Your task to perform on an android device: See recent photos Image 0: 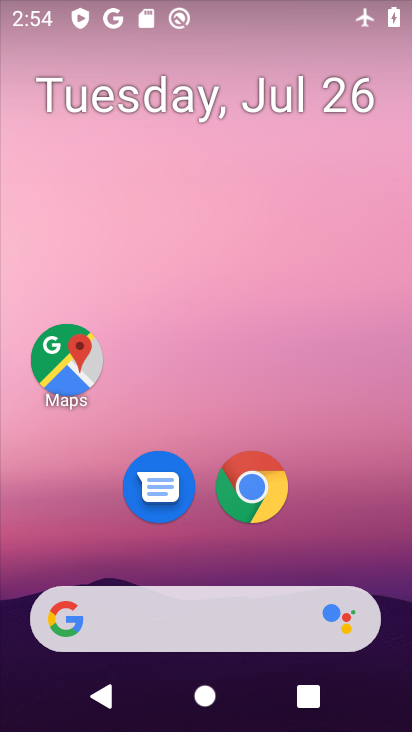
Step 0: drag from (134, 531) to (271, 0)
Your task to perform on an android device: See recent photos Image 1: 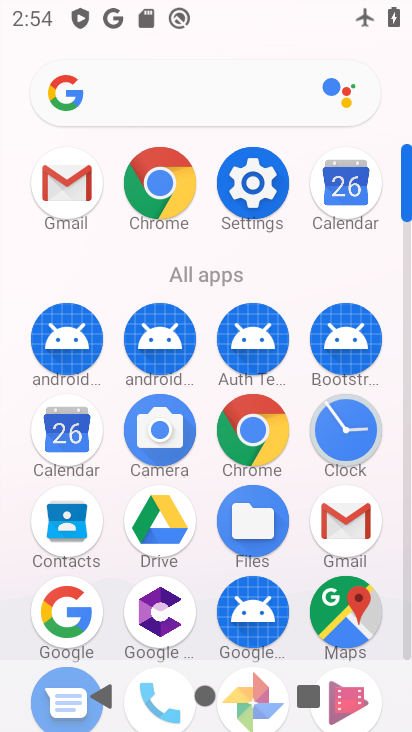
Step 1: drag from (194, 552) to (255, 183)
Your task to perform on an android device: See recent photos Image 2: 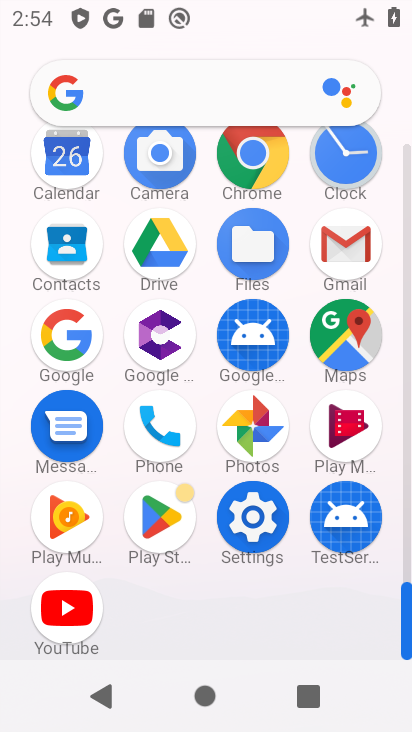
Step 2: click (241, 430)
Your task to perform on an android device: See recent photos Image 3: 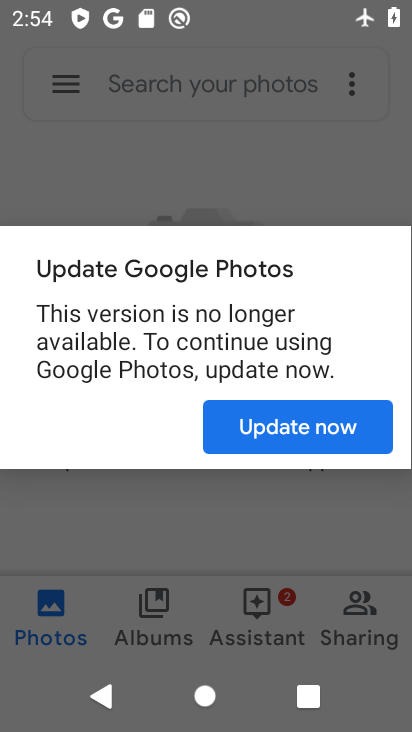
Step 3: click (304, 435)
Your task to perform on an android device: See recent photos Image 4: 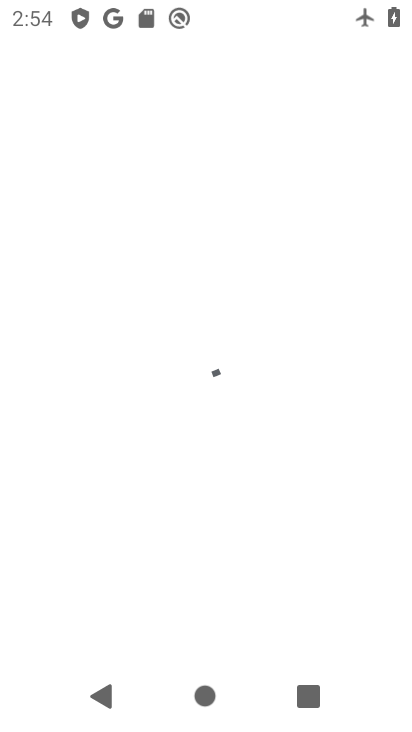
Step 4: task complete